Your task to perform on an android device: find photos in the google photos app Image 0: 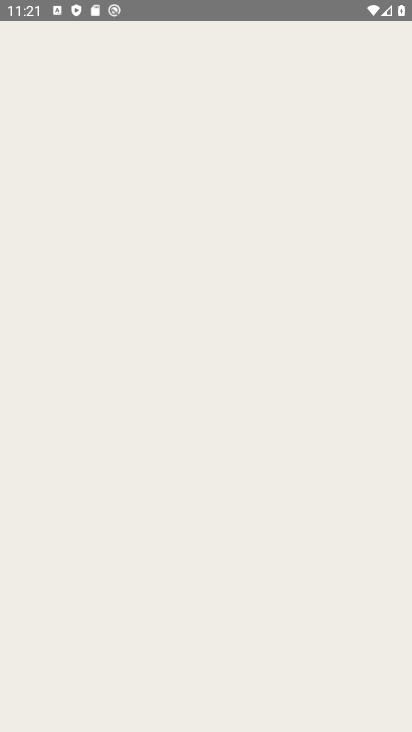
Step 0: drag from (250, 637) to (299, 209)
Your task to perform on an android device: find photos in the google photos app Image 1: 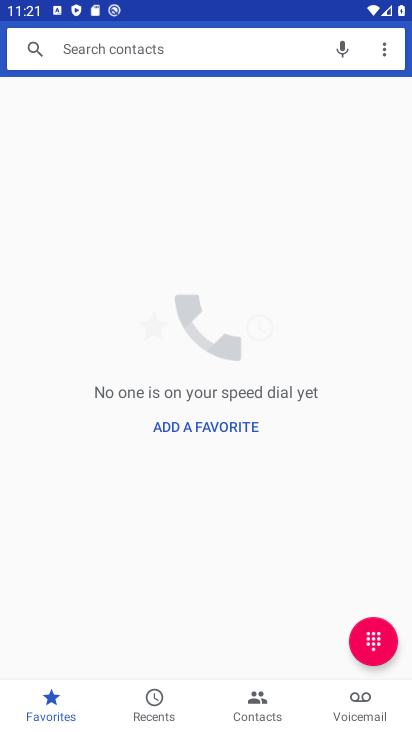
Step 1: press home button
Your task to perform on an android device: find photos in the google photos app Image 2: 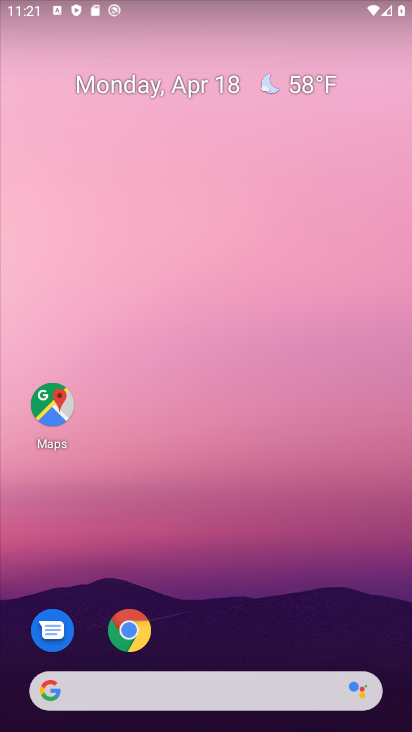
Step 2: drag from (194, 582) to (264, 235)
Your task to perform on an android device: find photos in the google photos app Image 3: 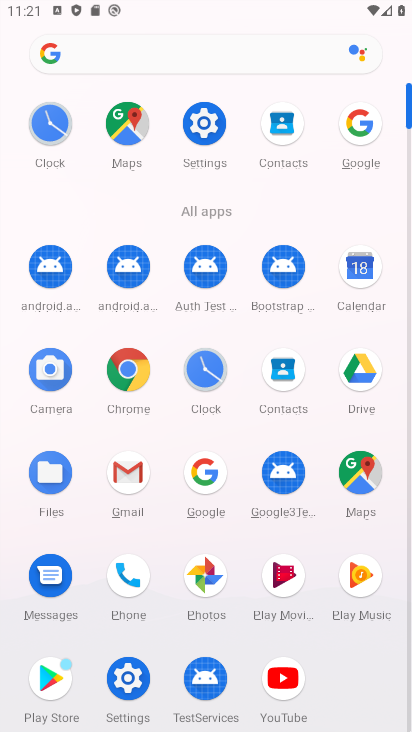
Step 3: click (204, 582)
Your task to perform on an android device: find photos in the google photos app Image 4: 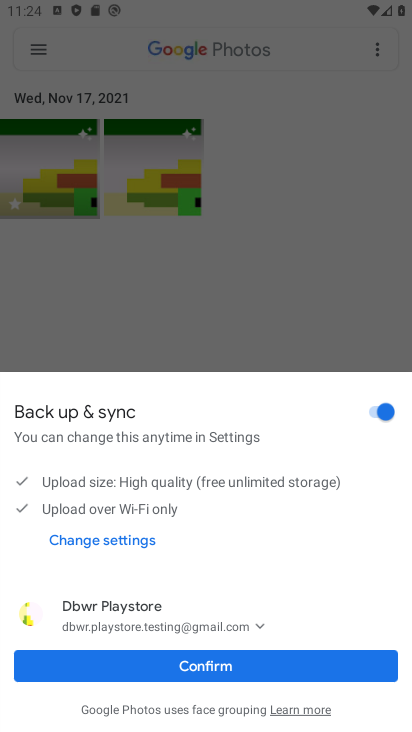
Step 4: click (300, 663)
Your task to perform on an android device: find photos in the google photos app Image 5: 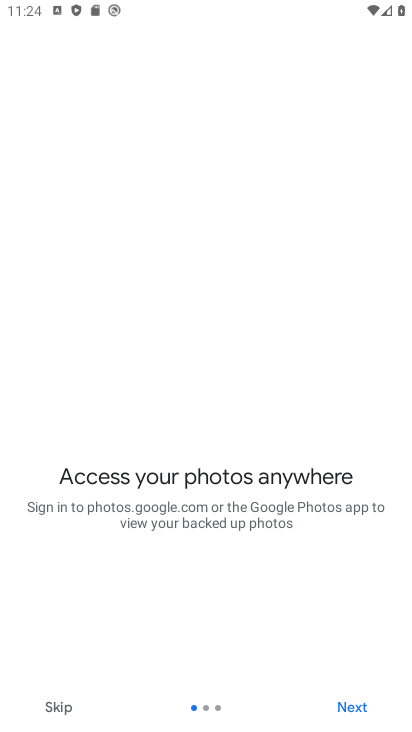
Step 5: click (360, 710)
Your task to perform on an android device: find photos in the google photos app Image 6: 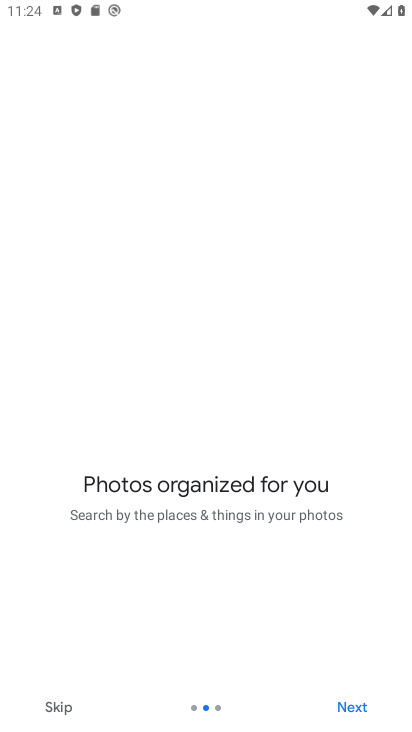
Step 6: click (360, 710)
Your task to perform on an android device: find photos in the google photos app Image 7: 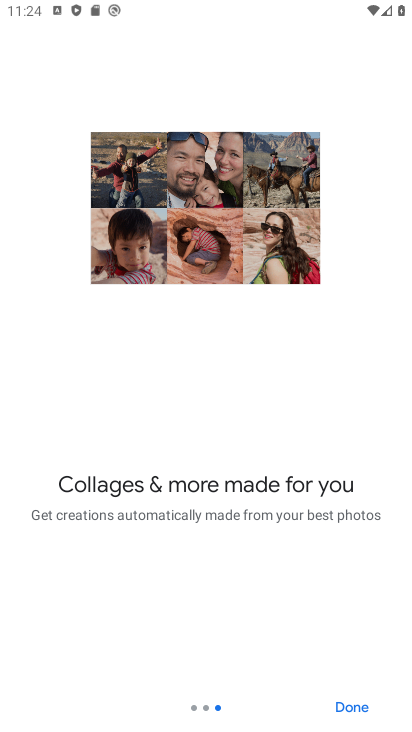
Step 7: click (360, 710)
Your task to perform on an android device: find photos in the google photos app Image 8: 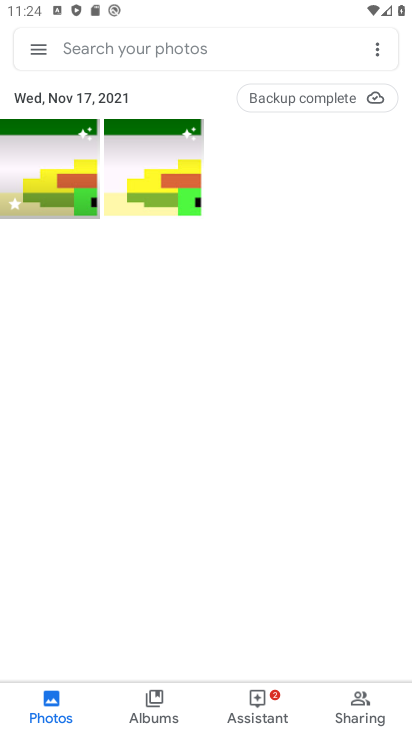
Step 8: click (60, 169)
Your task to perform on an android device: find photos in the google photos app Image 9: 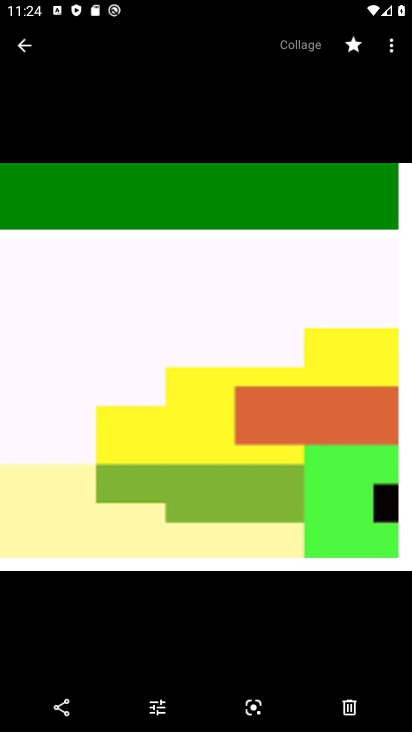
Step 9: task complete